Your task to perform on an android device: Open Reddit.com Image 0: 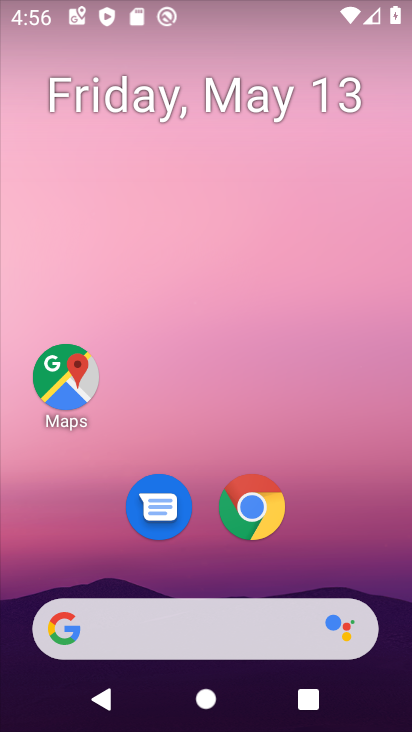
Step 0: click (251, 507)
Your task to perform on an android device: Open Reddit.com Image 1: 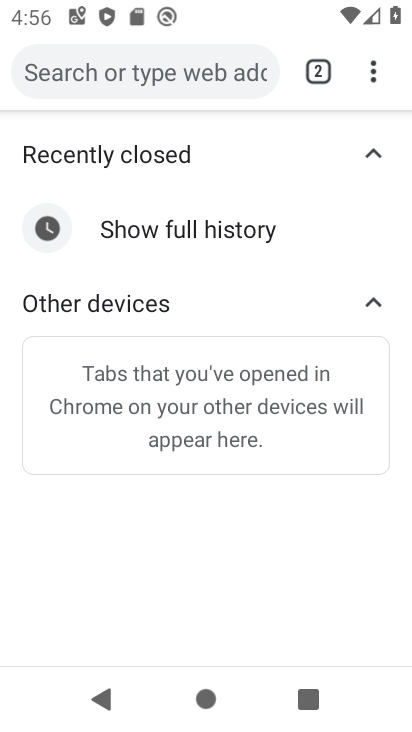
Step 1: click (171, 63)
Your task to perform on an android device: Open Reddit.com Image 2: 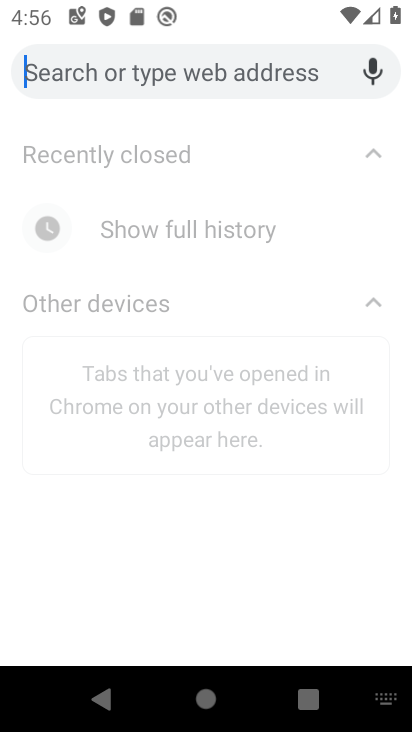
Step 2: type "reddit.com"
Your task to perform on an android device: Open Reddit.com Image 3: 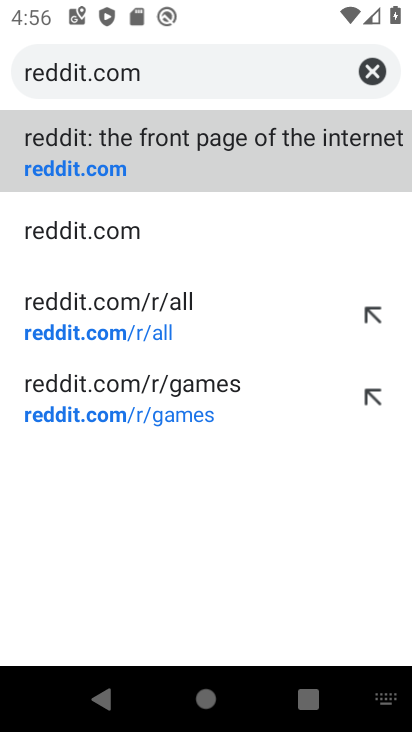
Step 3: click (204, 154)
Your task to perform on an android device: Open Reddit.com Image 4: 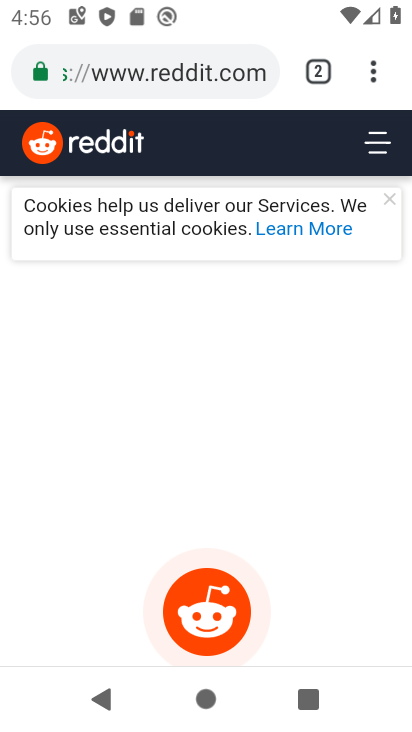
Step 4: task complete